Your task to perform on an android device: Search for sushi restaurants on Maps Image 0: 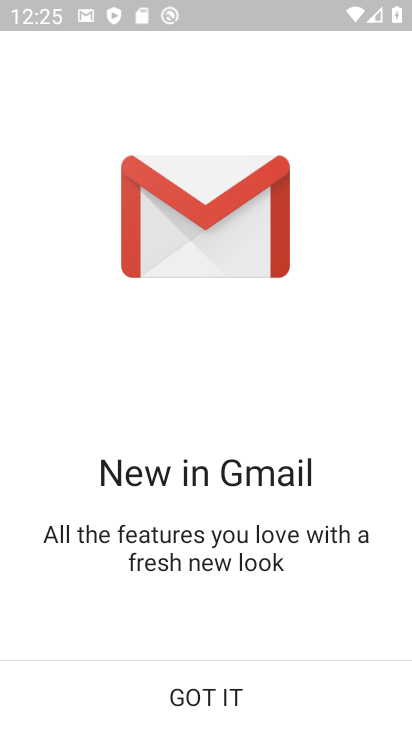
Step 0: press home button
Your task to perform on an android device: Search for sushi restaurants on Maps Image 1: 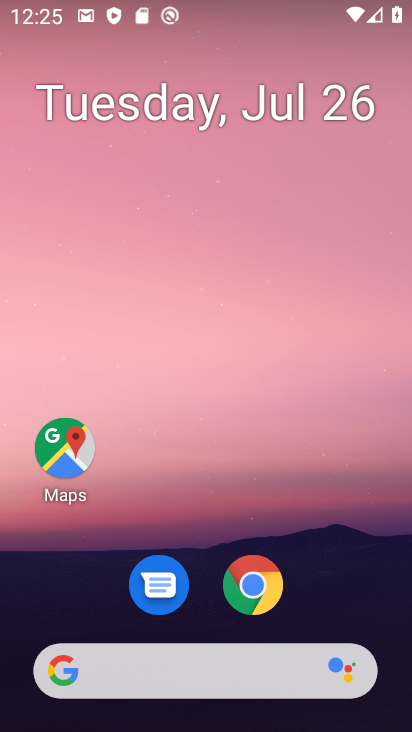
Step 1: click (59, 460)
Your task to perform on an android device: Search for sushi restaurants on Maps Image 2: 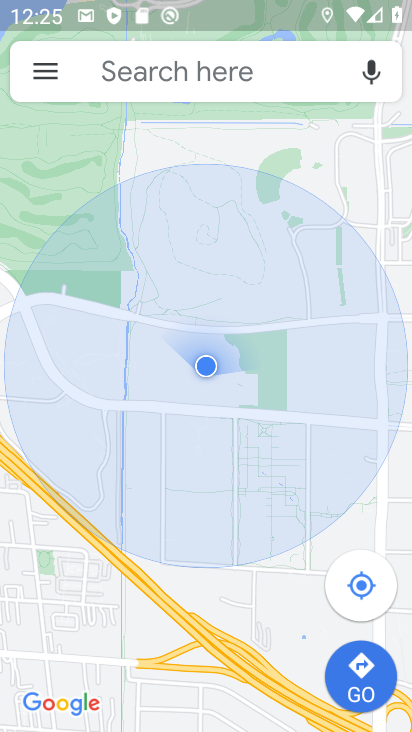
Step 2: click (176, 66)
Your task to perform on an android device: Search for sushi restaurants on Maps Image 3: 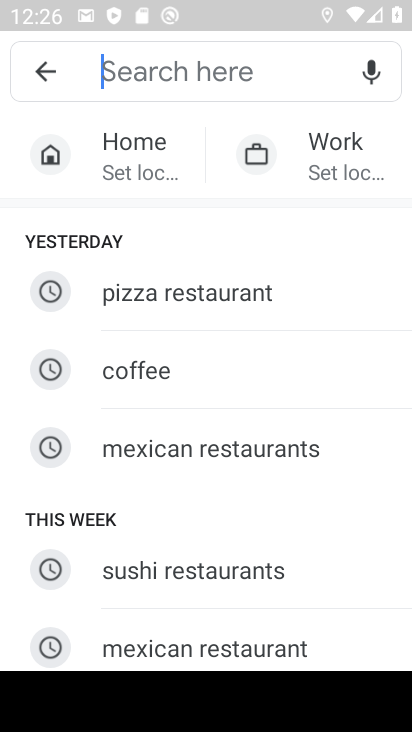
Step 3: click (218, 574)
Your task to perform on an android device: Search for sushi restaurants on Maps Image 4: 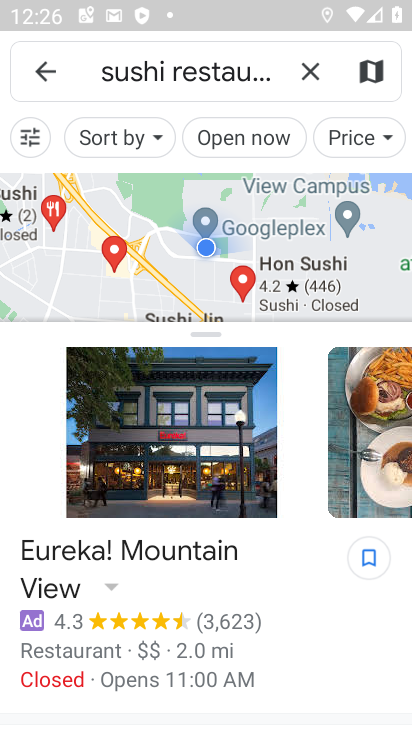
Step 4: task complete